Your task to perform on an android device: Do I have any events this weekend? Image 0: 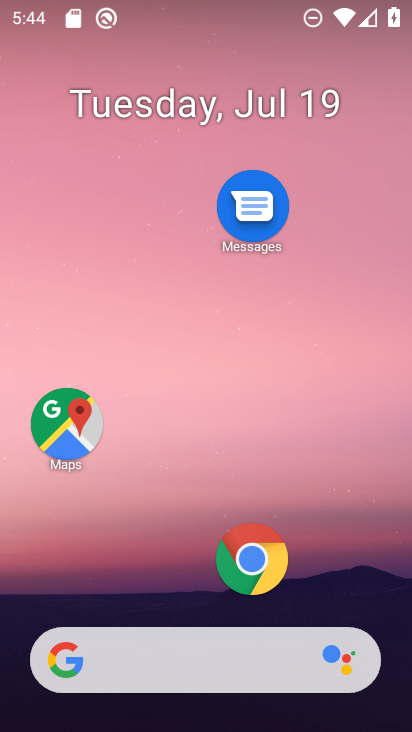
Step 0: drag from (148, 415) to (54, 195)
Your task to perform on an android device: Do I have any events this weekend? Image 1: 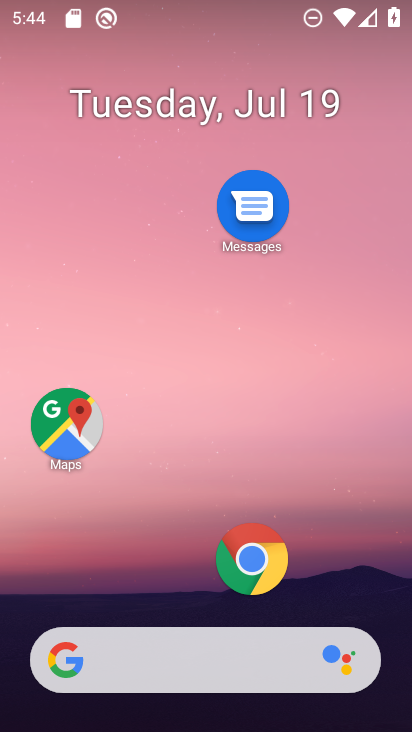
Step 1: drag from (177, 371) to (208, 21)
Your task to perform on an android device: Do I have any events this weekend? Image 2: 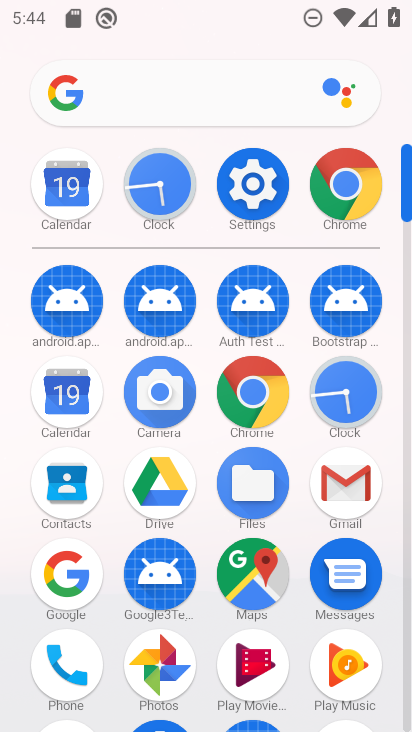
Step 2: click (76, 402)
Your task to perform on an android device: Do I have any events this weekend? Image 3: 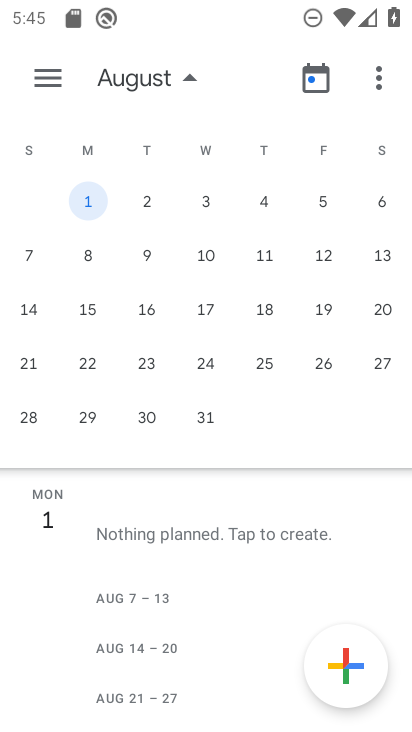
Step 3: drag from (30, 317) to (366, 274)
Your task to perform on an android device: Do I have any events this weekend? Image 4: 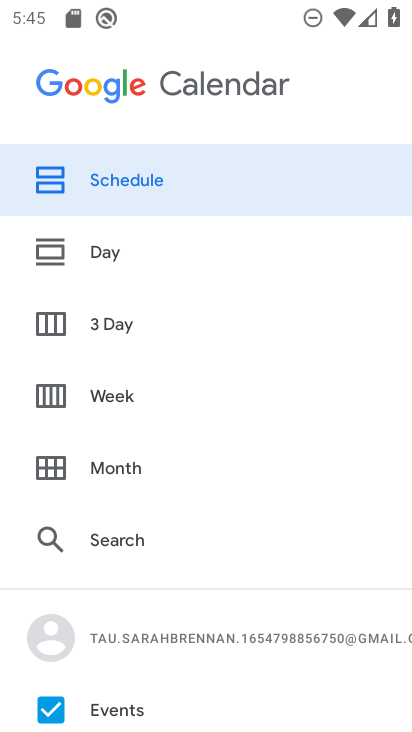
Step 4: click (140, 187)
Your task to perform on an android device: Do I have any events this weekend? Image 5: 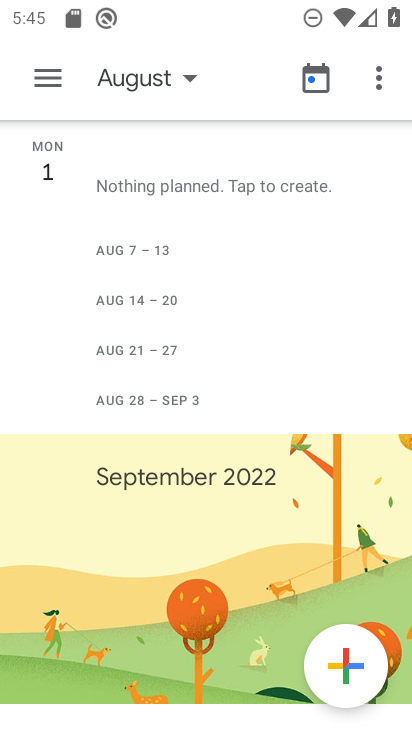
Step 5: click (127, 80)
Your task to perform on an android device: Do I have any events this weekend? Image 6: 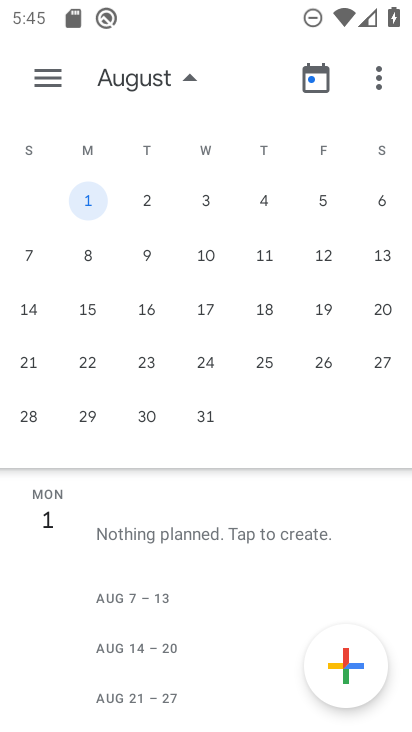
Step 6: drag from (16, 339) to (394, 298)
Your task to perform on an android device: Do I have any events this weekend? Image 7: 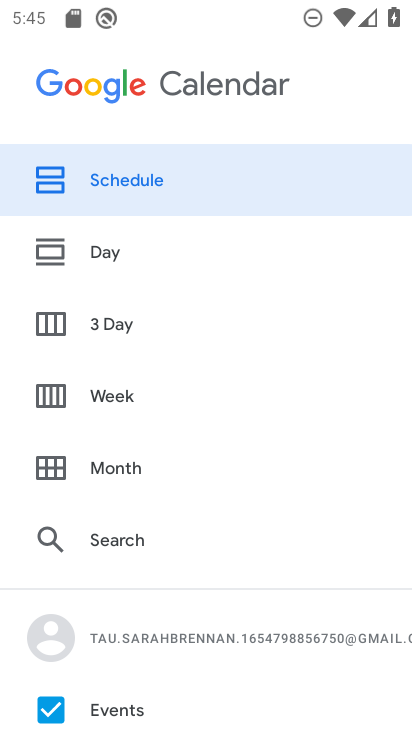
Step 7: drag from (378, 292) to (9, 340)
Your task to perform on an android device: Do I have any events this weekend? Image 8: 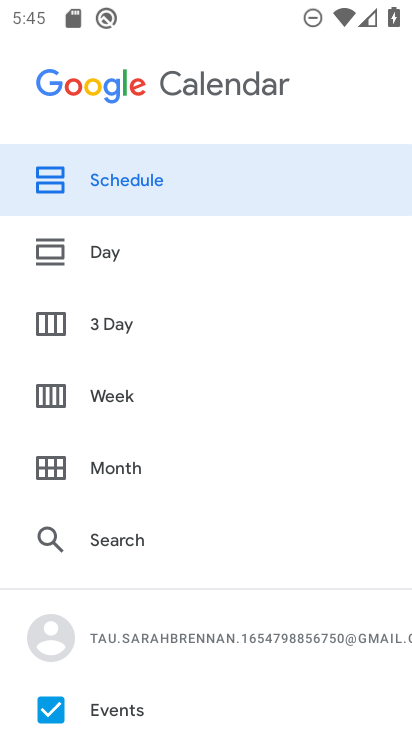
Step 8: click (214, 170)
Your task to perform on an android device: Do I have any events this weekend? Image 9: 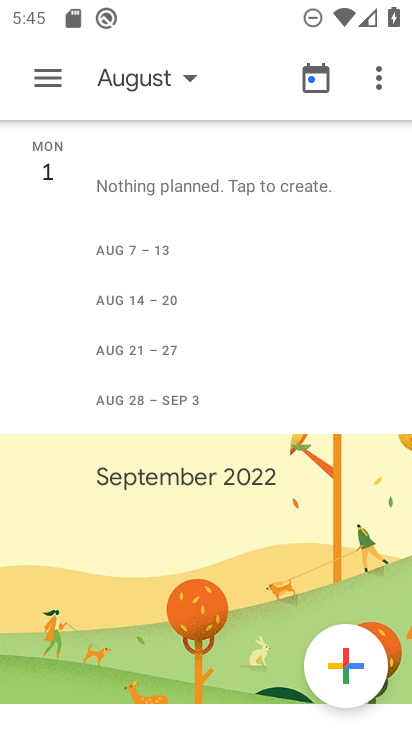
Step 9: drag from (106, 321) to (333, 318)
Your task to perform on an android device: Do I have any events this weekend? Image 10: 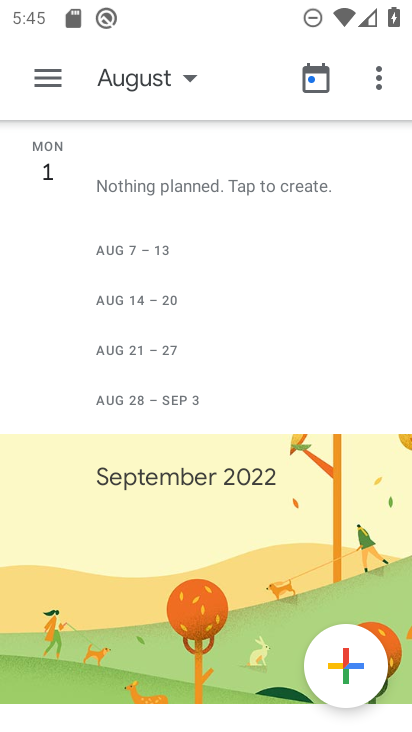
Step 10: click (169, 78)
Your task to perform on an android device: Do I have any events this weekend? Image 11: 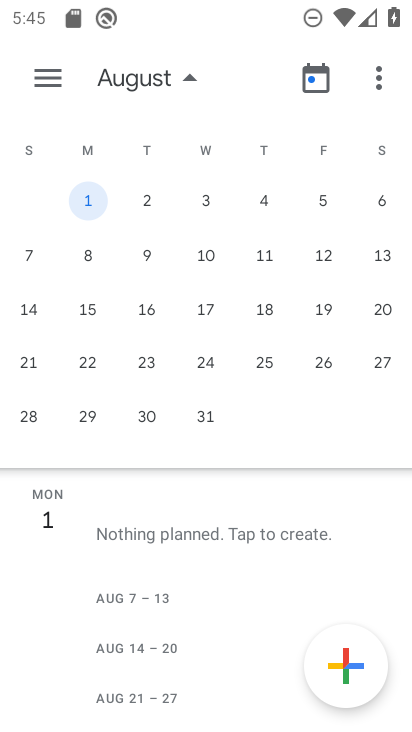
Step 11: drag from (85, 317) to (364, 303)
Your task to perform on an android device: Do I have any events this weekend? Image 12: 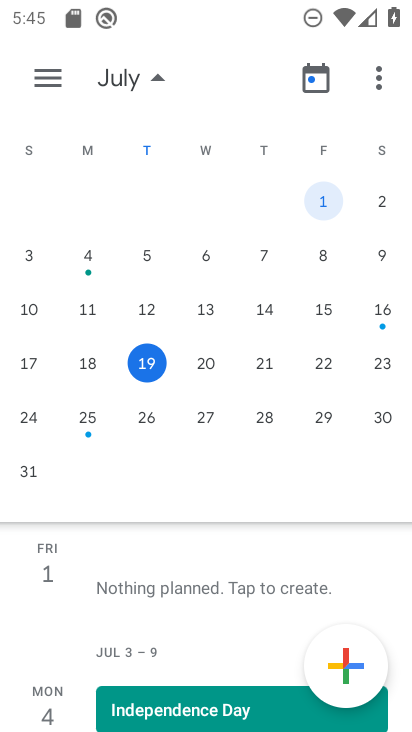
Step 12: click (379, 362)
Your task to perform on an android device: Do I have any events this weekend? Image 13: 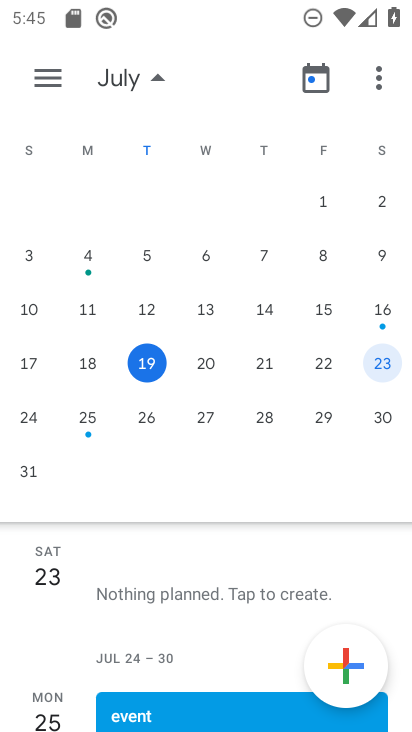
Step 13: task complete